Your task to perform on an android device: Open Chrome and go to settings Image 0: 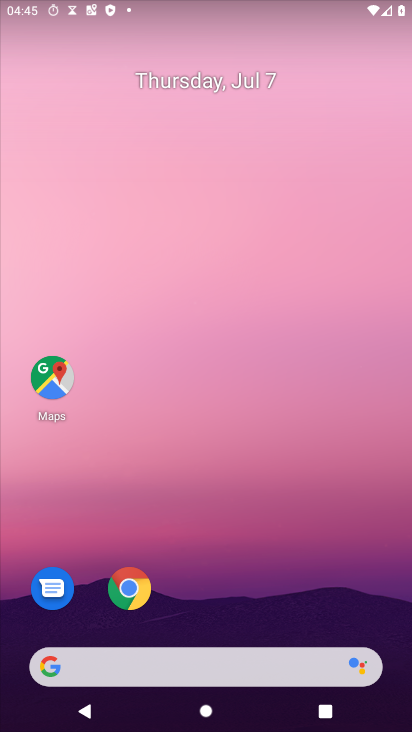
Step 0: press home button
Your task to perform on an android device: Open Chrome and go to settings Image 1: 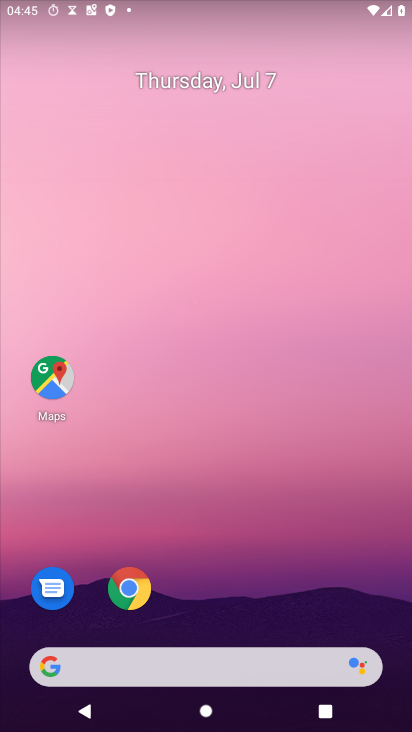
Step 1: drag from (215, 615) to (195, 176)
Your task to perform on an android device: Open Chrome and go to settings Image 2: 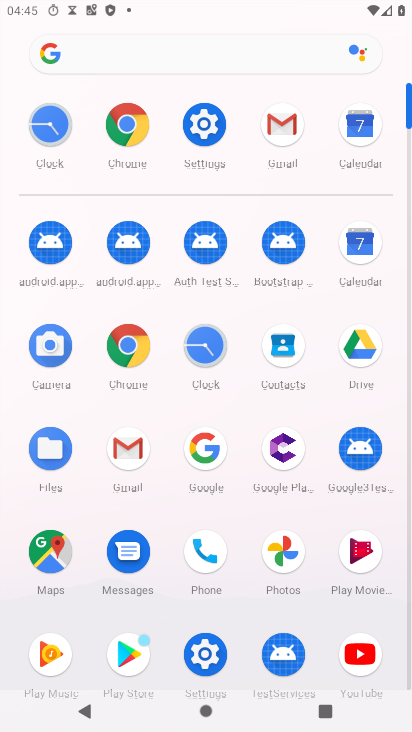
Step 2: click (124, 137)
Your task to perform on an android device: Open Chrome and go to settings Image 3: 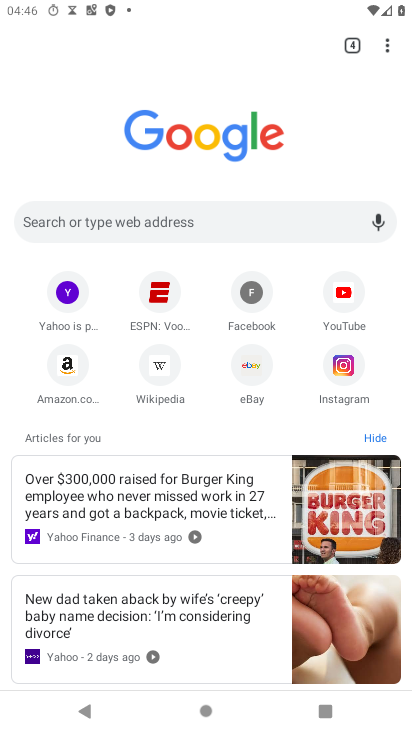
Step 3: task complete